Your task to perform on an android device: Open the stopwatch Image 0: 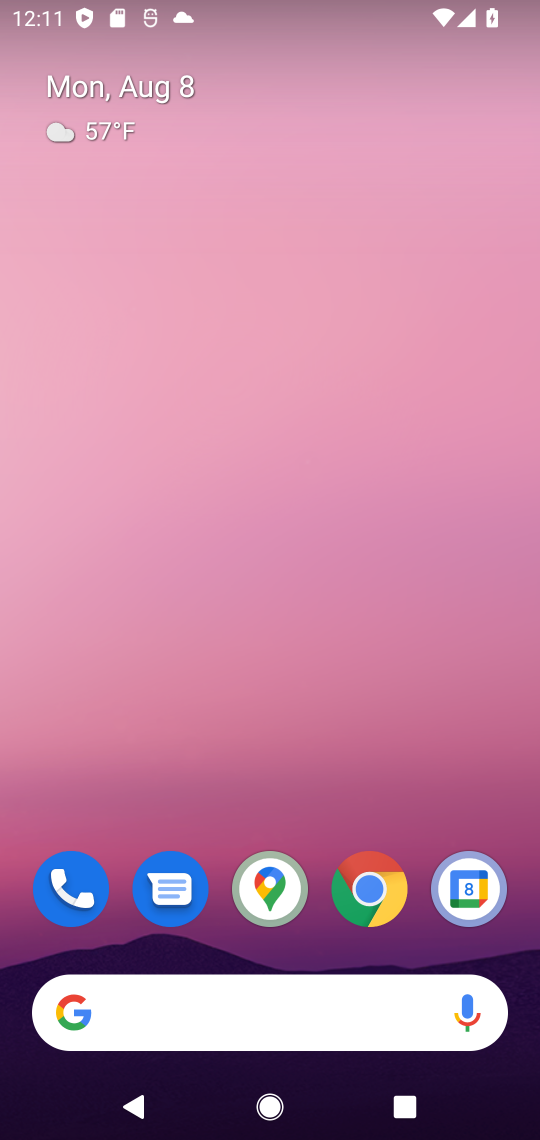
Step 0: drag from (322, 834) to (351, 27)
Your task to perform on an android device: Open the stopwatch Image 1: 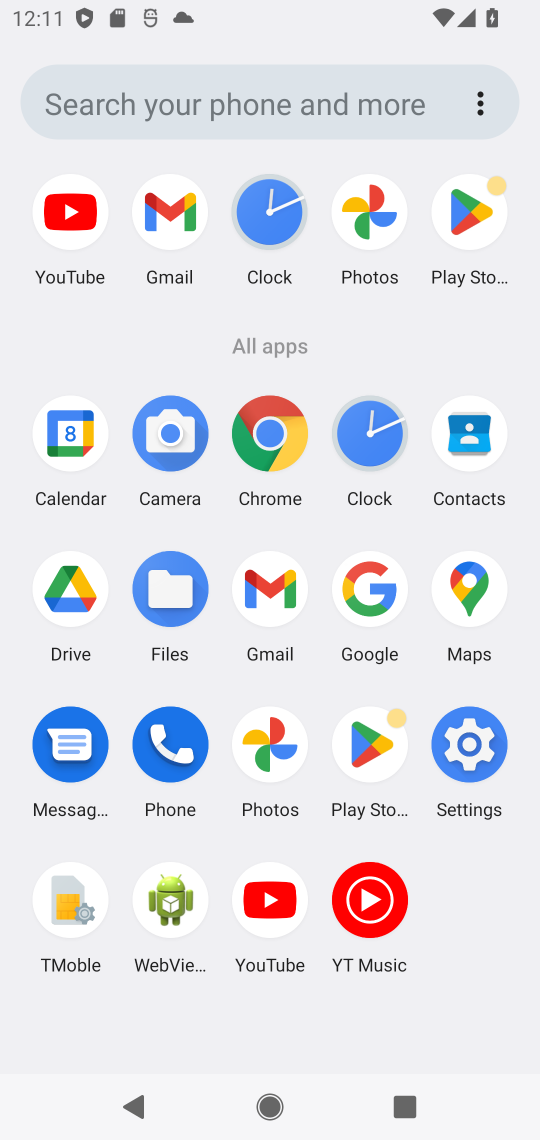
Step 1: click (387, 450)
Your task to perform on an android device: Open the stopwatch Image 2: 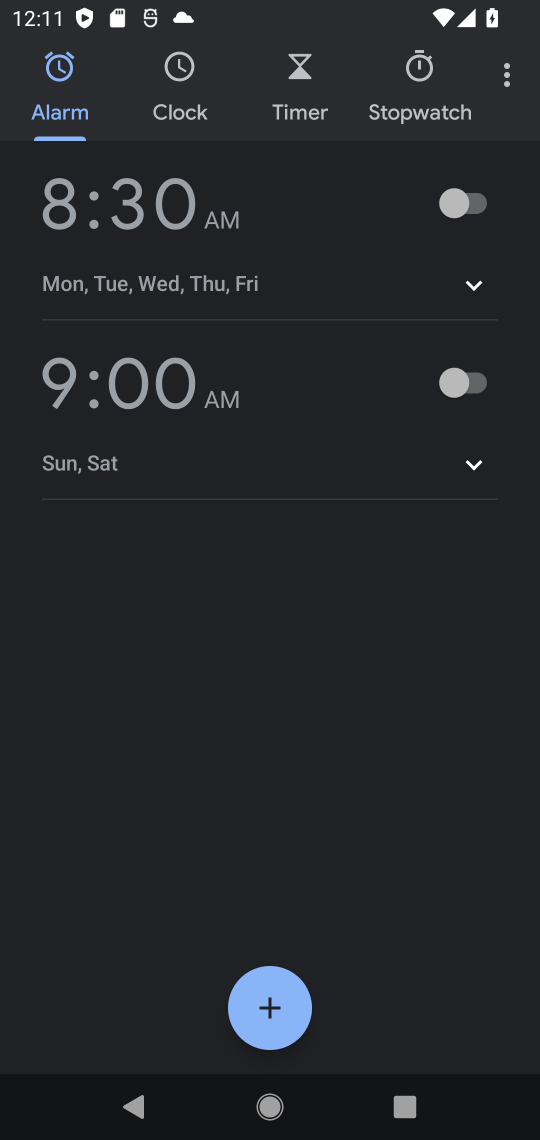
Step 2: click (394, 94)
Your task to perform on an android device: Open the stopwatch Image 3: 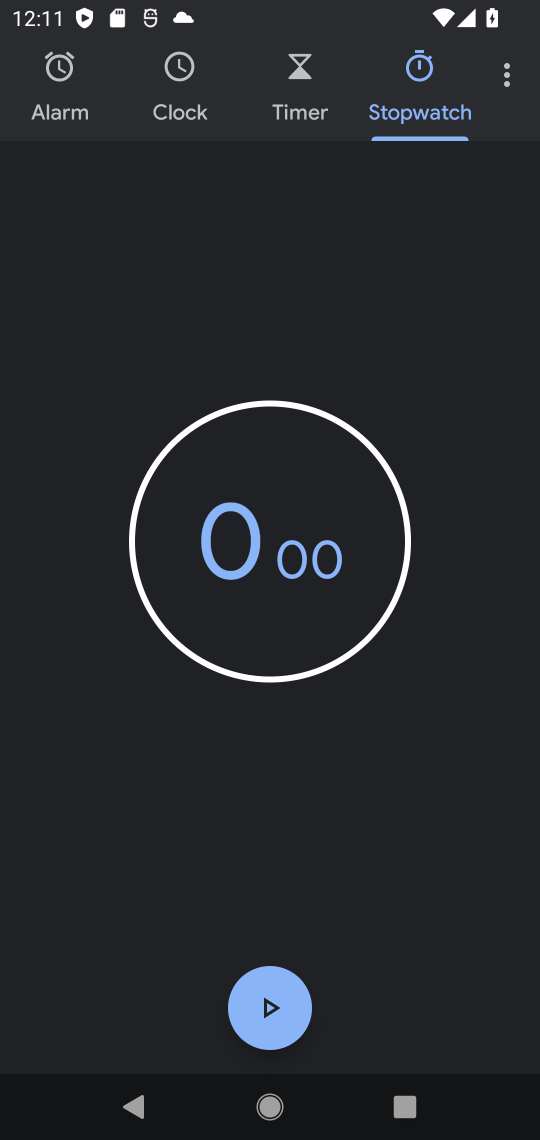
Step 3: task complete